Your task to perform on an android device: Go to Reddit.com Image 0: 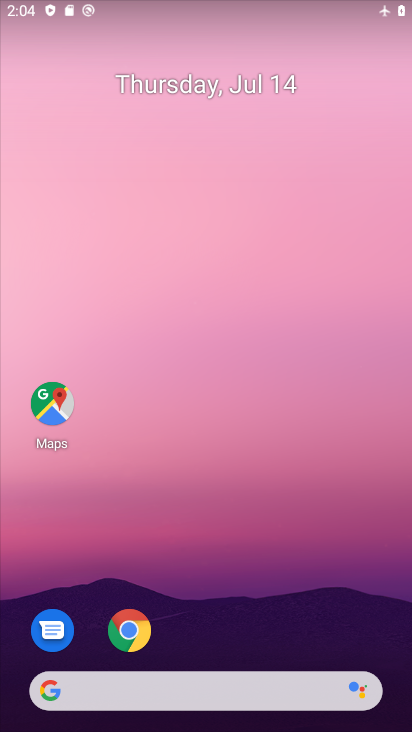
Step 0: press home button
Your task to perform on an android device: Go to Reddit.com Image 1: 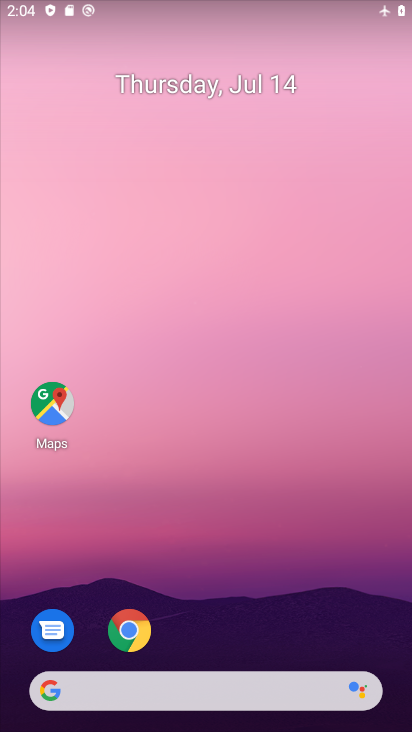
Step 1: click (126, 625)
Your task to perform on an android device: Go to Reddit.com Image 2: 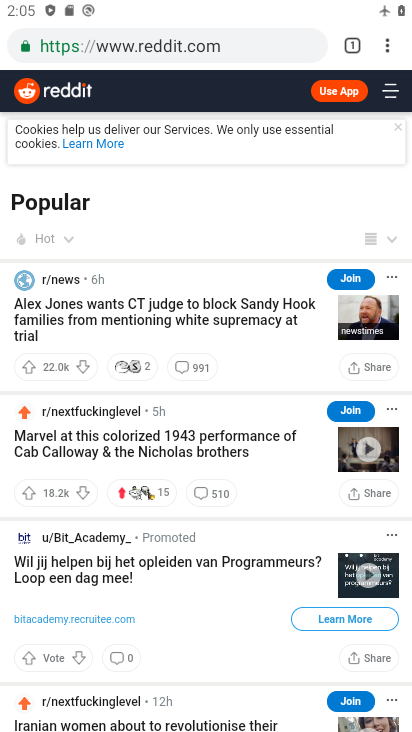
Step 2: task complete